Your task to perform on an android device: Go to Amazon Image 0: 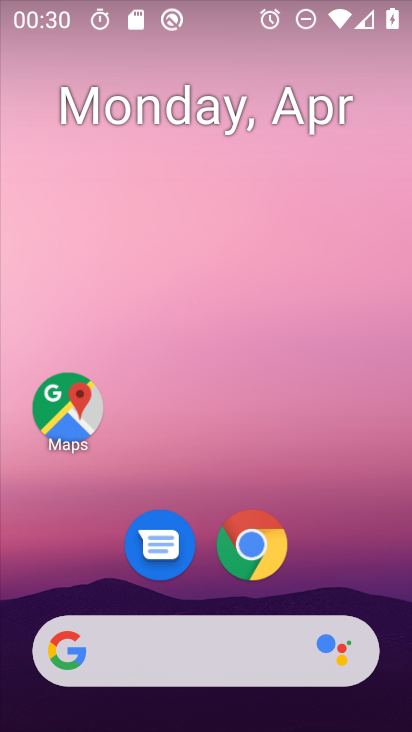
Step 0: drag from (321, 485) to (333, 236)
Your task to perform on an android device: Go to Amazon Image 1: 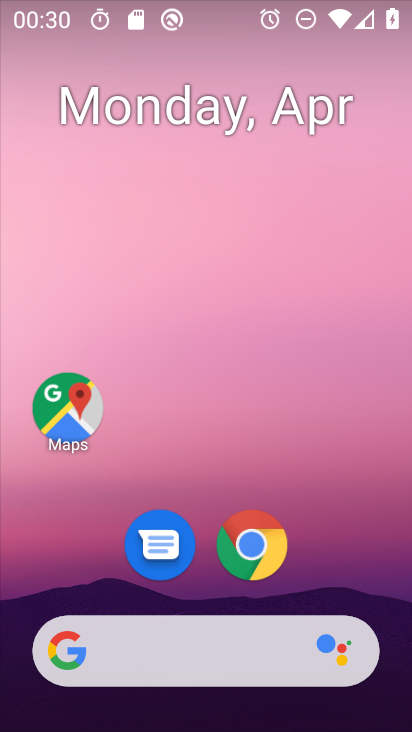
Step 1: drag from (343, 515) to (362, 203)
Your task to perform on an android device: Go to Amazon Image 2: 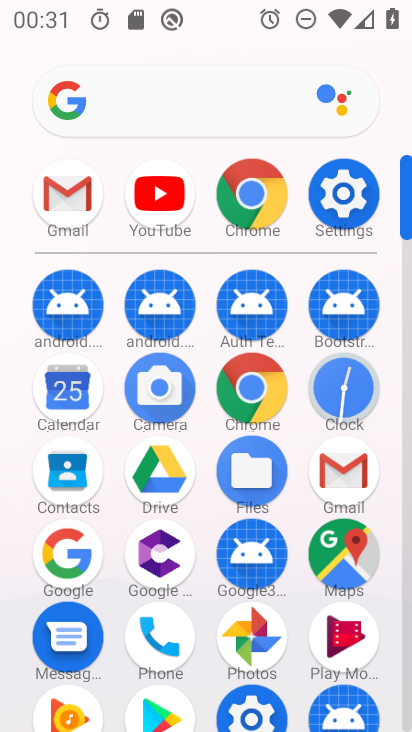
Step 2: click (265, 195)
Your task to perform on an android device: Go to Amazon Image 3: 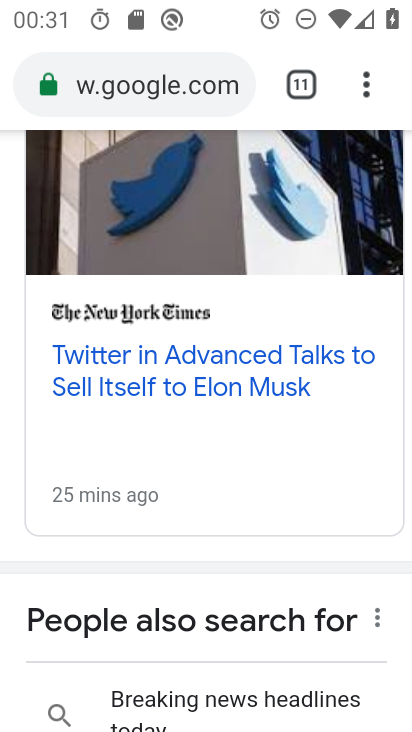
Step 3: click (344, 94)
Your task to perform on an android device: Go to Amazon Image 4: 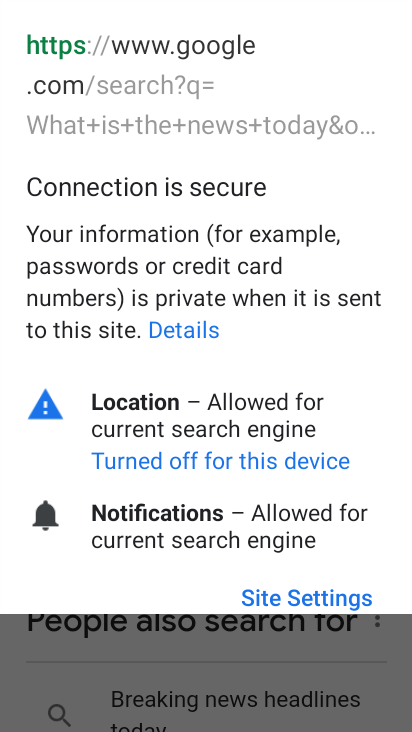
Step 4: press back button
Your task to perform on an android device: Go to Amazon Image 5: 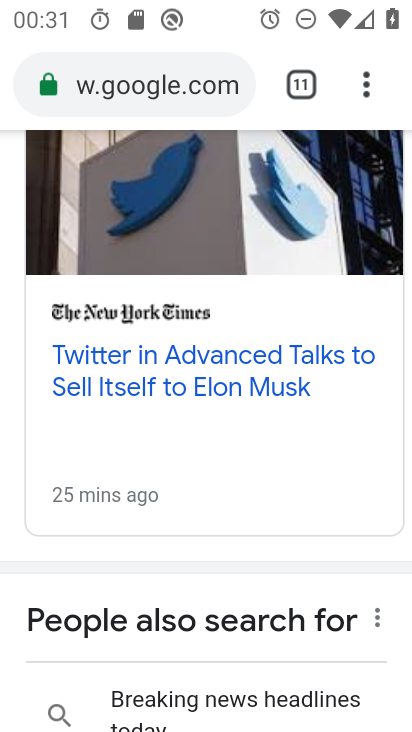
Step 5: click (353, 83)
Your task to perform on an android device: Go to Amazon Image 6: 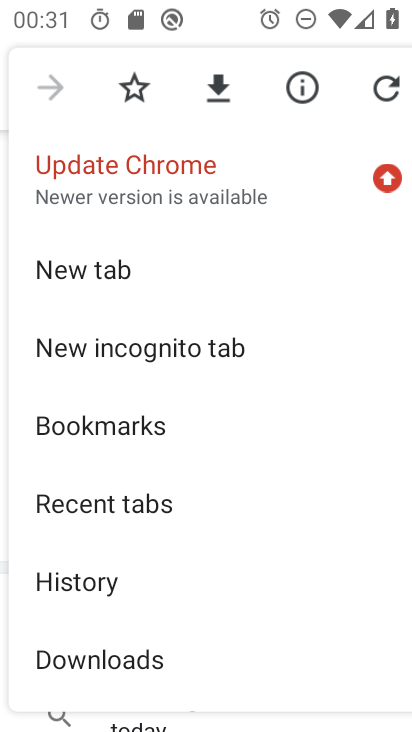
Step 6: click (145, 269)
Your task to perform on an android device: Go to Amazon Image 7: 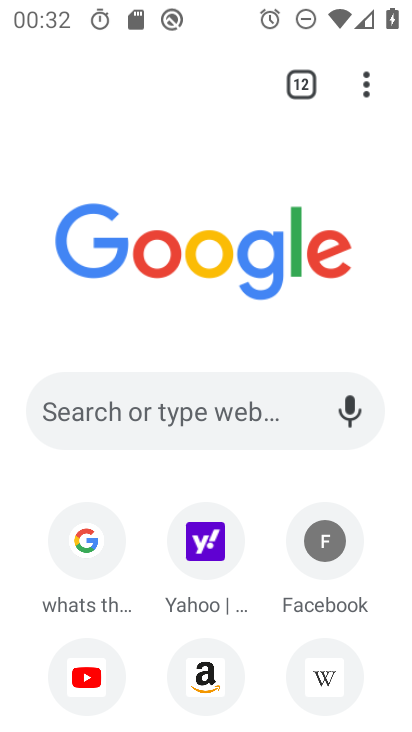
Step 7: click (198, 661)
Your task to perform on an android device: Go to Amazon Image 8: 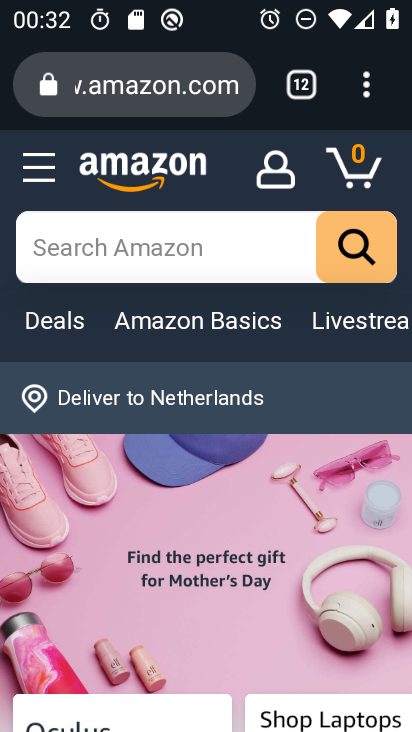
Step 8: task complete